Your task to perform on an android device: Open the calendar and show me this week's events Image 0: 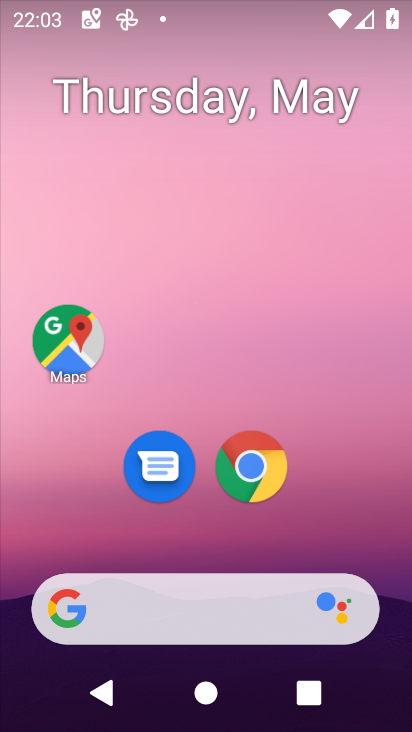
Step 0: drag from (353, 461) to (351, 6)
Your task to perform on an android device: Open the calendar and show me this week's events Image 1: 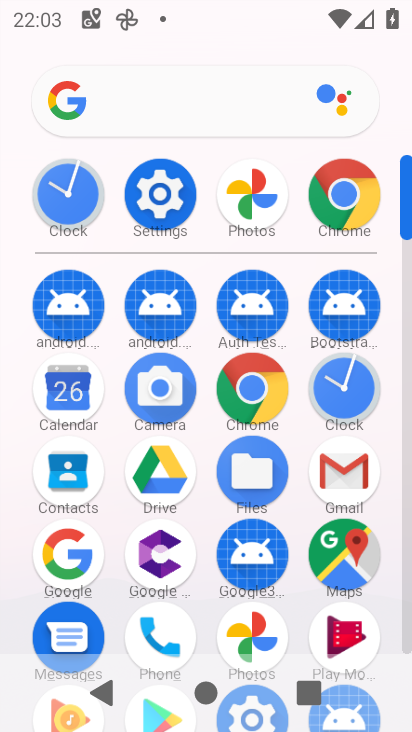
Step 1: click (77, 378)
Your task to perform on an android device: Open the calendar and show me this week's events Image 2: 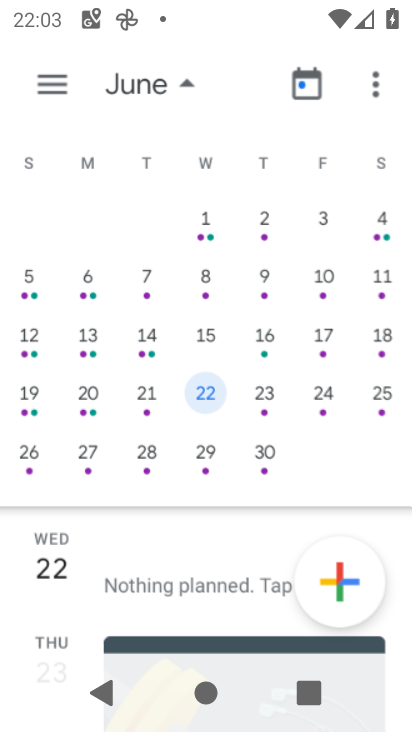
Step 2: task complete